Your task to perform on an android device: Open Amazon Image 0: 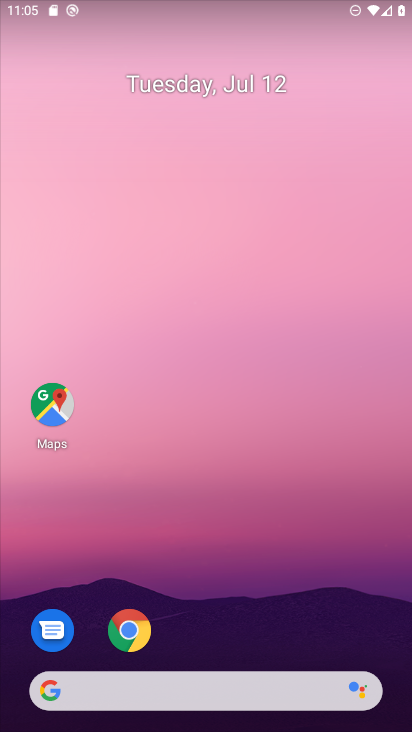
Step 0: click (134, 626)
Your task to perform on an android device: Open Amazon Image 1: 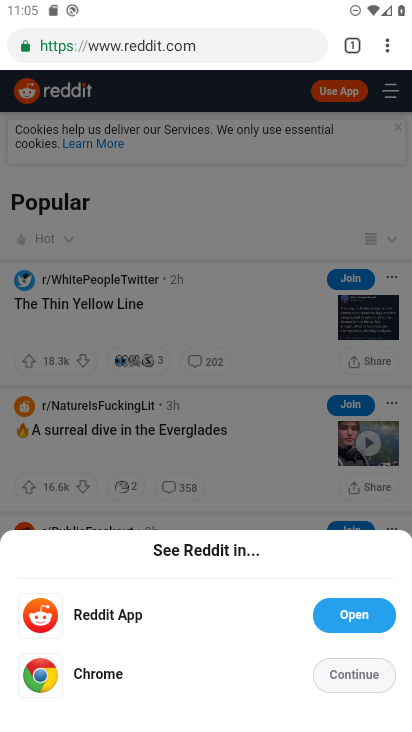
Step 1: click (250, 37)
Your task to perform on an android device: Open Amazon Image 2: 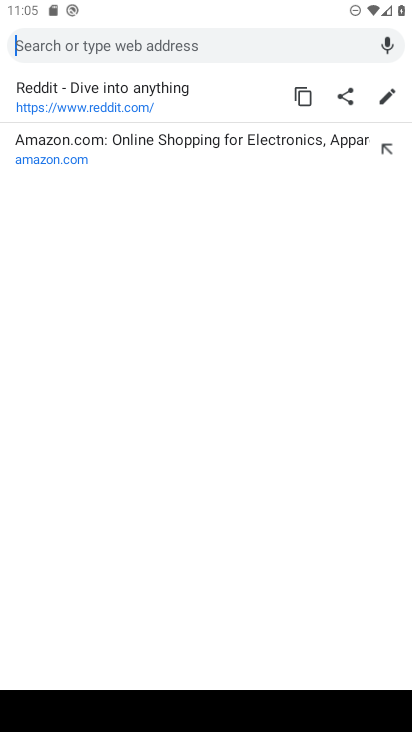
Step 2: click (40, 159)
Your task to perform on an android device: Open Amazon Image 3: 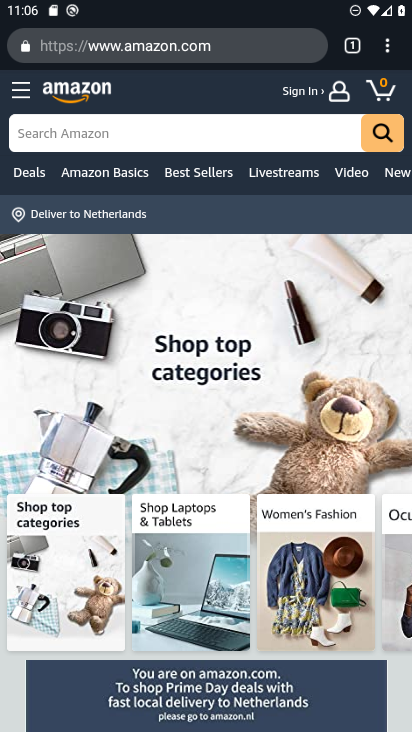
Step 3: task complete